Your task to perform on an android device: Show me the alarms in the clock app Image 0: 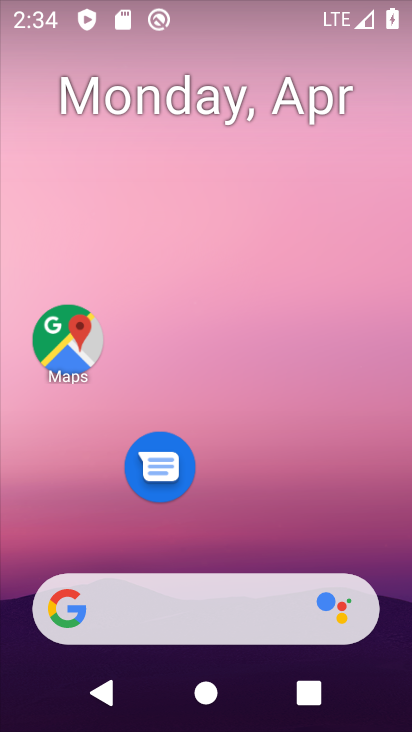
Step 0: drag from (287, 429) to (340, 50)
Your task to perform on an android device: Show me the alarms in the clock app Image 1: 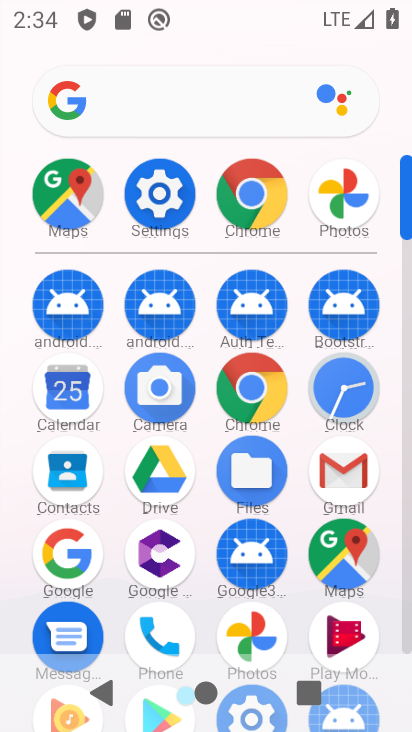
Step 1: click (334, 378)
Your task to perform on an android device: Show me the alarms in the clock app Image 2: 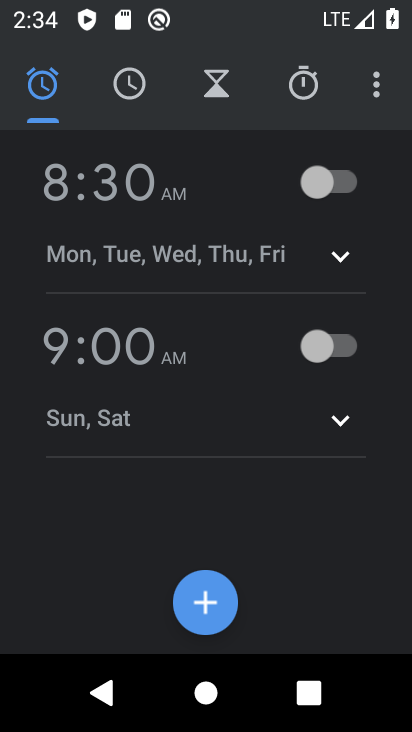
Step 2: task complete